Your task to perform on an android device: Open Google Chrome and open the bookmarks view Image 0: 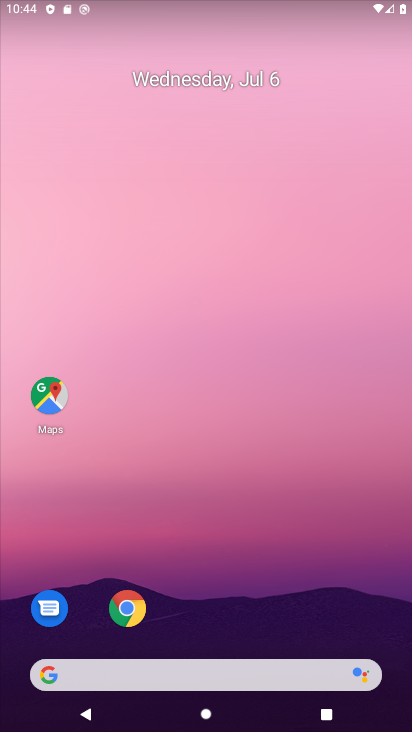
Step 0: click (127, 616)
Your task to perform on an android device: Open Google Chrome and open the bookmarks view Image 1: 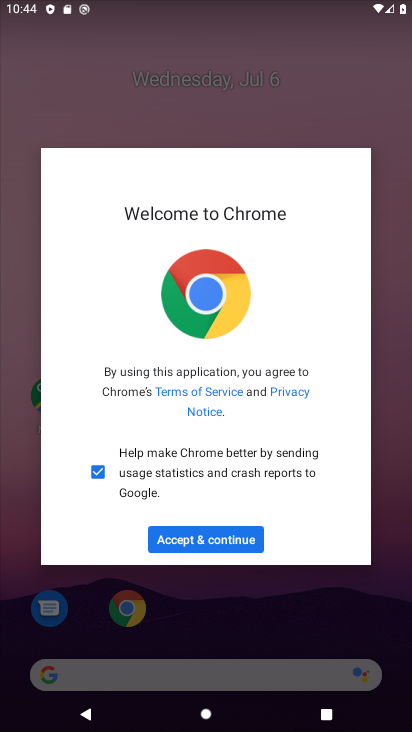
Step 1: click (198, 537)
Your task to perform on an android device: Open Google Chrome and open the bookmarks view Image 2: 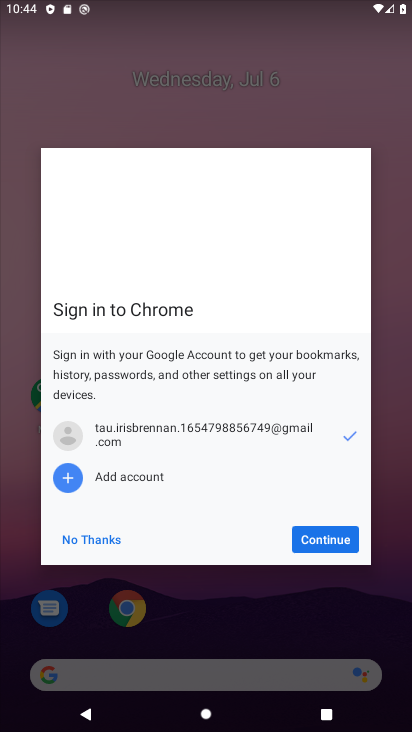
Step 2: click (309, 537)
Your task to perform on an android device: Open Google Chrome and open the bookmarks view Image 3: 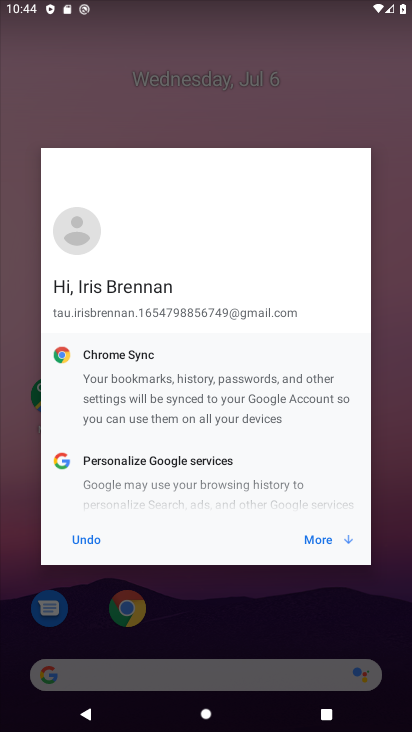
Step 3: click (312, 542)
Your task to perform on an android device: Open Google Chrome and open the bookmarks view Image 4: 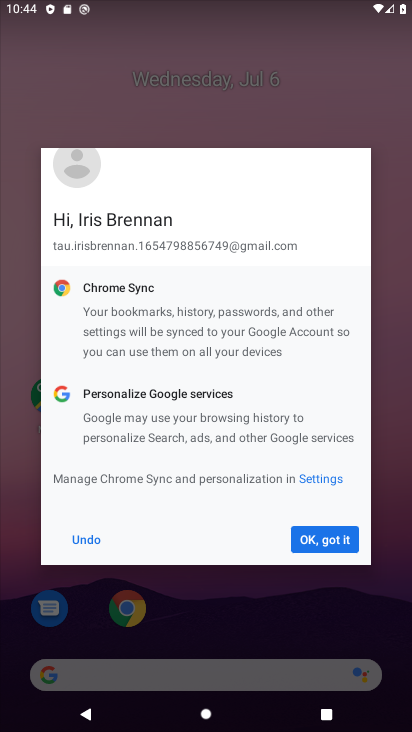
Step 4: click (312, 542)
Your task to perform on an android device: Open Google Chrome and open the bookmarks view Image 5: 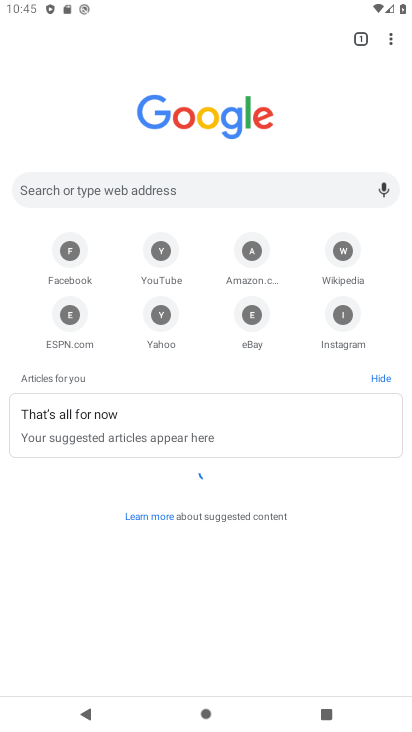
Step 5: click (391, 38)
Your task to perform on an android device: Open Google Chrome and open the bookmarks view Image 6: 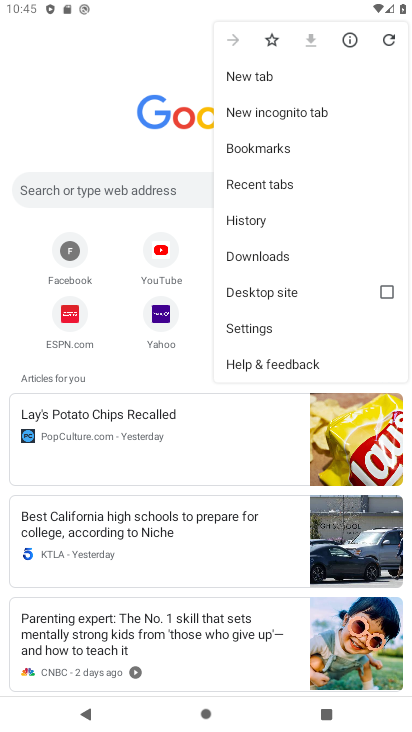
Step 6: click (270, 145)
Your task to perform on an android device: Open Google Chrome and open the bookmarks view Image 7: 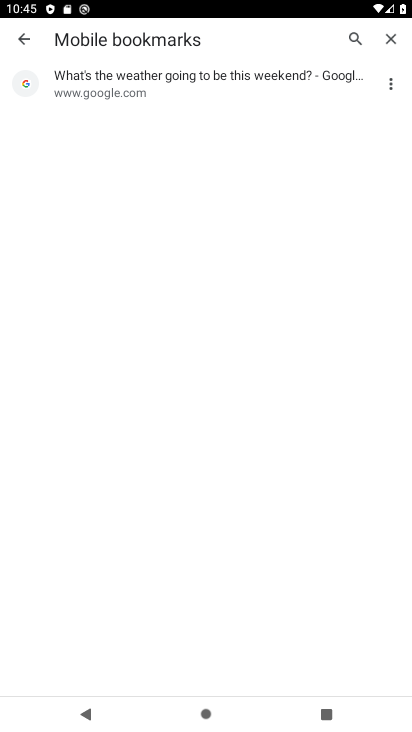
Step 7: task complete